Your task to perform on an android device: see creations saved in the google photos Image 0: 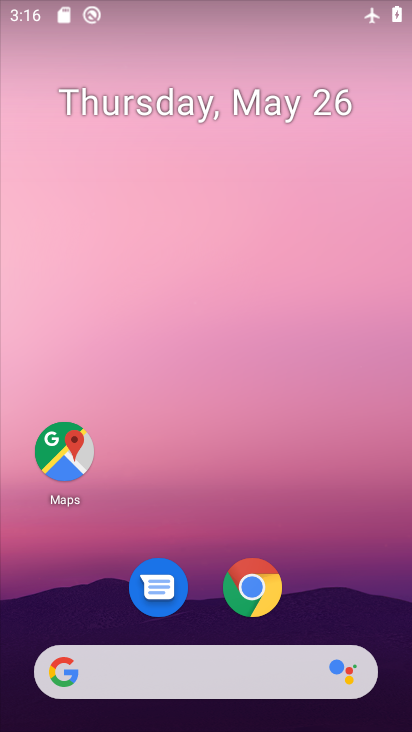
Step 0: drag from (315, 585) to (167, 180)
Your task to perform on an android device: see creations saved in the google photos Image 1: 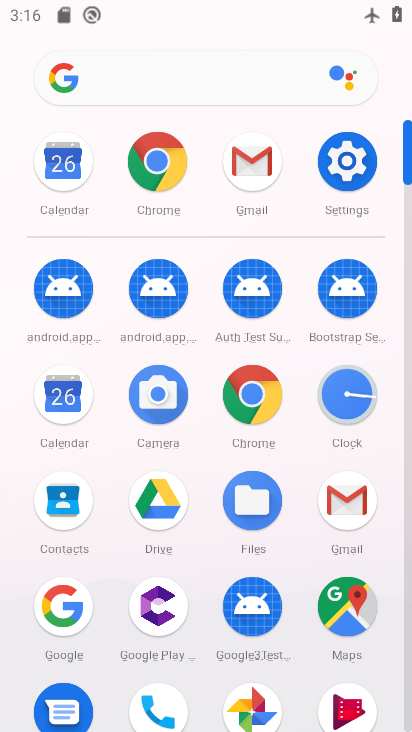
Step 1: drag from (255, 683) to (259, 355)
Your task to perform on an android device: see creations saved in the google photos Image 2: 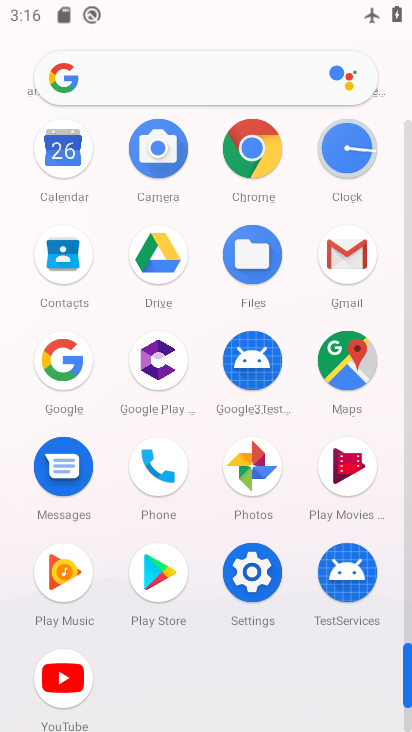
Step 2: drag from (270, 617) to (243, 317)
Your task to perform on an android device: see creations saved in the google photos Image 3: 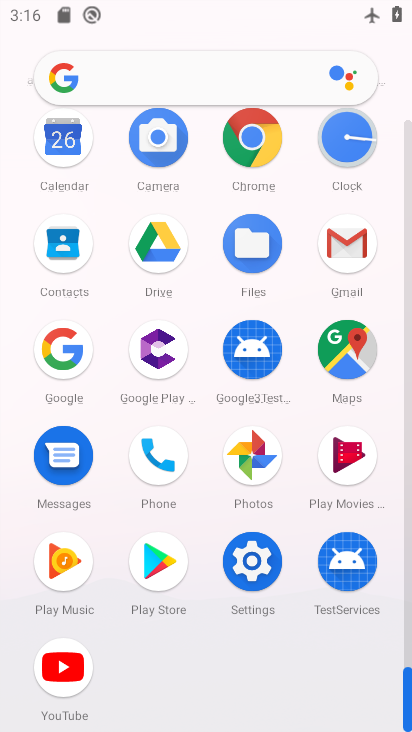
Step 3: click (255, 443)
Your task to perform on an android device: see creations saved in the google photos Image 4: 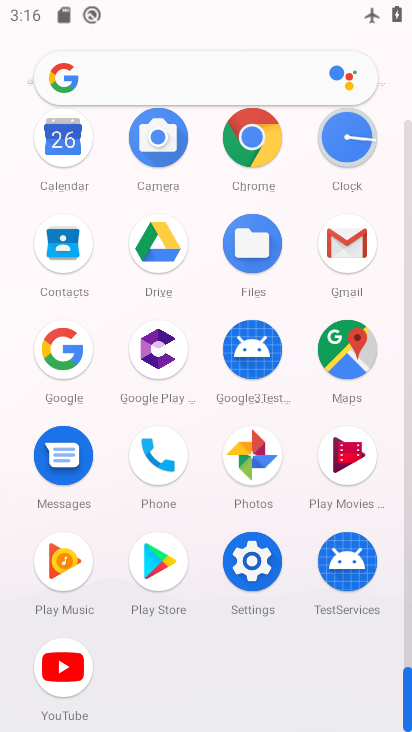
Step 4: click (257, 442)
Your task to perform on an android device: see creations saved in the google photos Image 5: 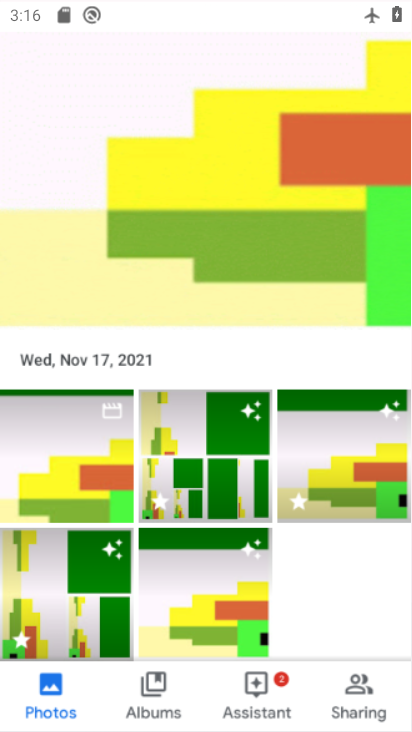
Step 5: click (259, 456)
Your task to perform on an android device: see creations saved in the google photos Image 6: 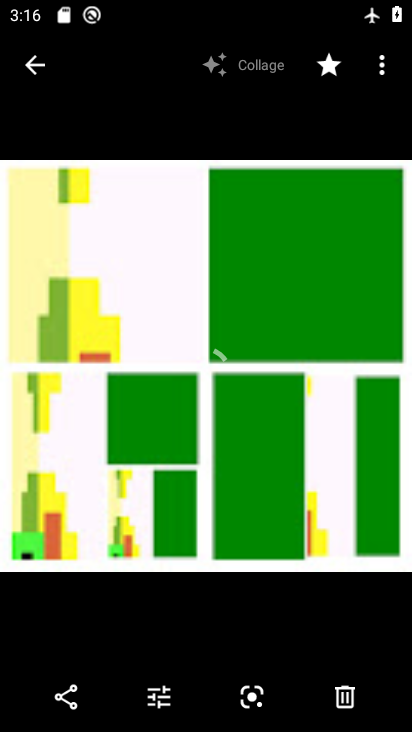
Step 6: click (45, 56)
Your task to perform on an android device: see creations saved in the google photos Image 7: 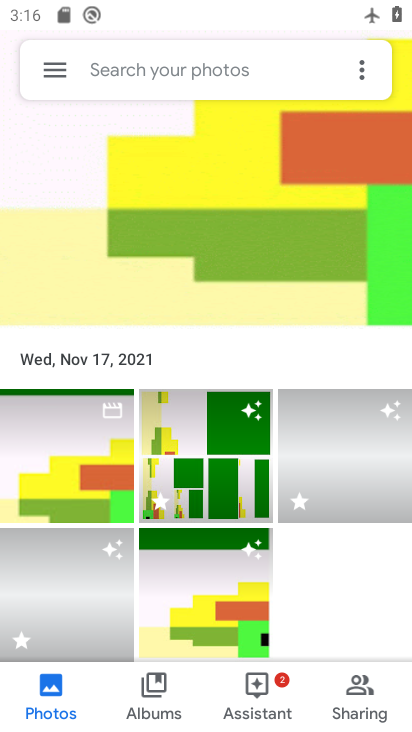
Step 7: task complete